Your task to perform on an android device: find photos in the google photos app Image 0: 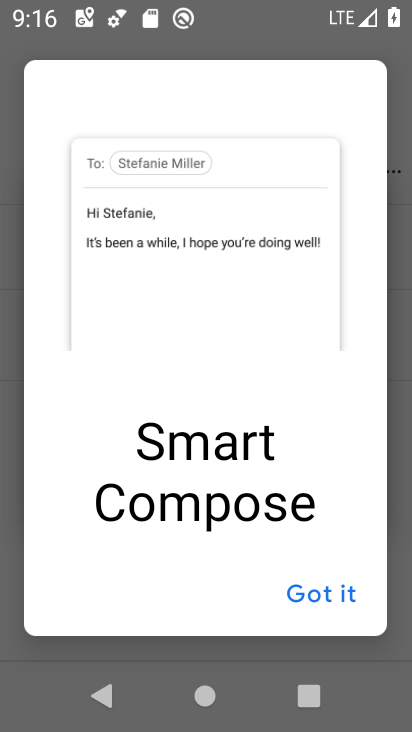
Step 0: press home button
Your task to perform on an android device: find photos in the google photos app Image 1: 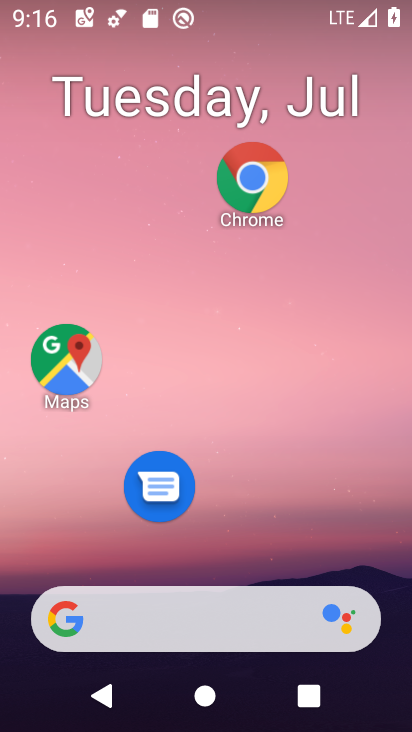
Step 1: drag from (206, 635) to (269, 199)
Your task to perform on an android device: find photos in the google photos app Image 2: 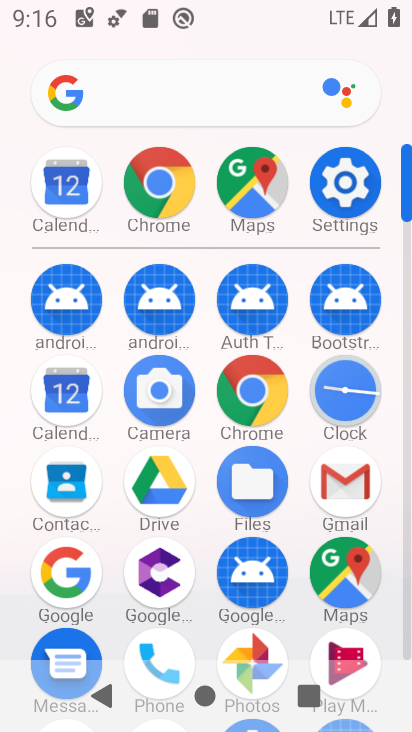
Step 2: drag from (193, 535) to (238, 138)
Your task to perform on an android device: find photos in the google photos app Image 3: 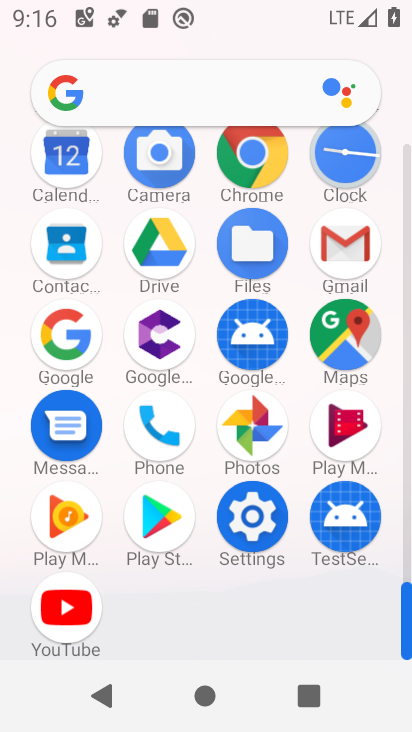
Step 3: click (252, 454)
Your task to perform on an android device: find photos in the google photos app Image 4: 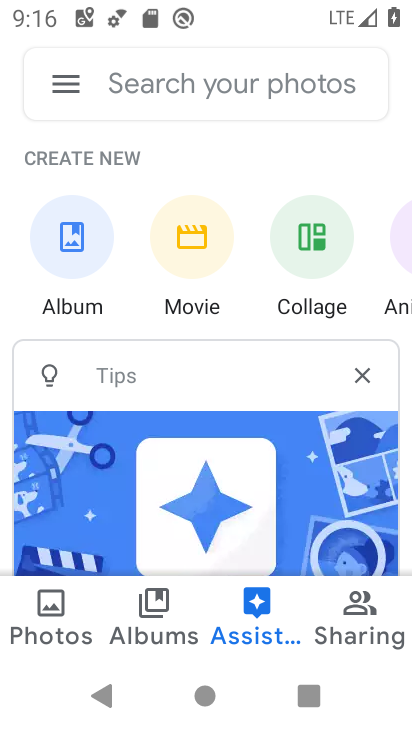
Step 4: click (59, 629)
Your task to perform on an android device: find photos in the google photos app Image 5: 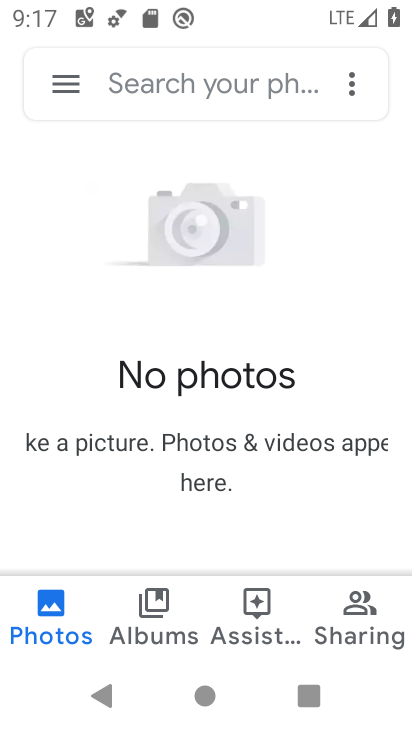
Step 5: task complete